Your task to perform on an android device: find which apps use the phone's location Image 0: 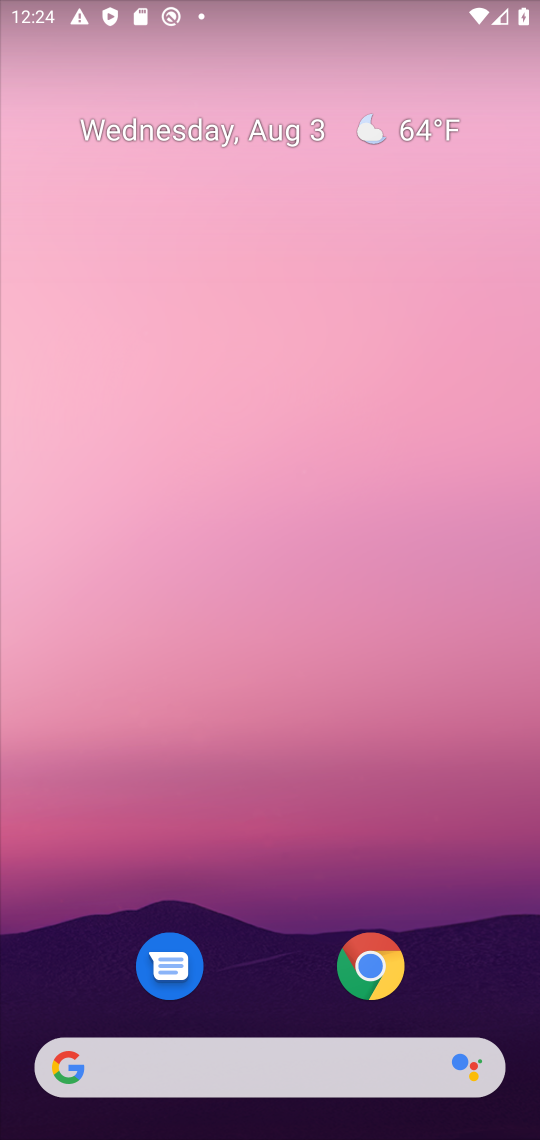
Step 0: drag from (274, 948) to (278, 247)
Your task to perform on an android device: find which apps use the phone's location Image 1: 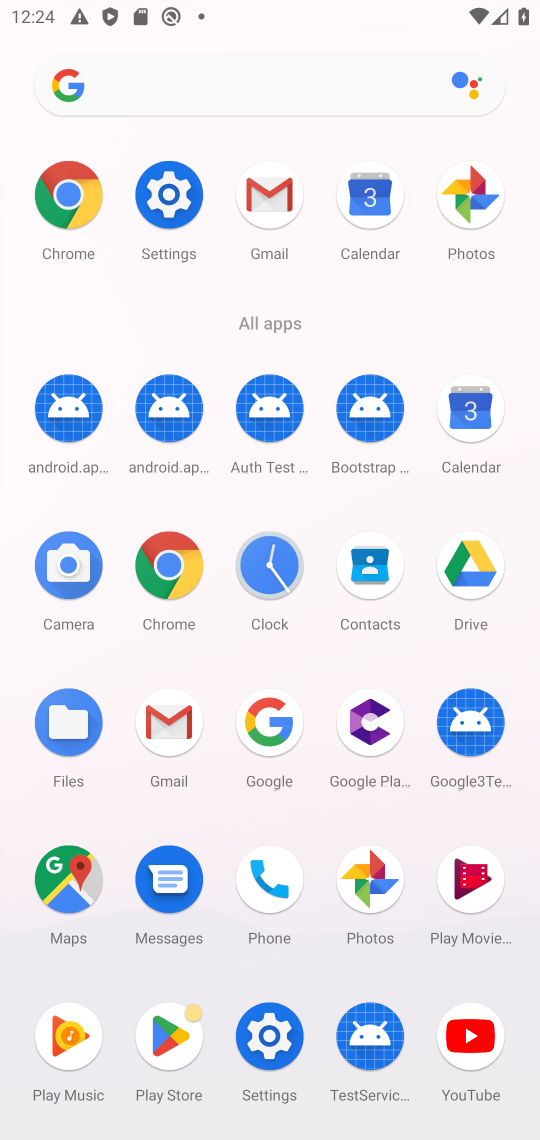
Step 1: click (196, 199)
Your task to perform on an android device: find which apps use the phone's location Image 2: 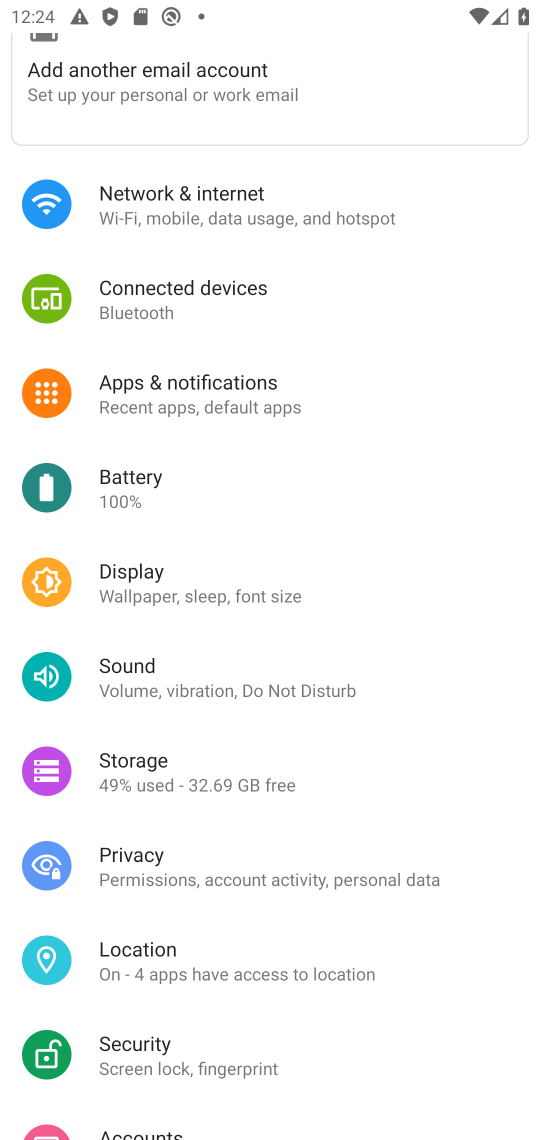
Step 2: click (230, 984)
Your task to perform on an android device: find which apps use the phone's location Image 3: 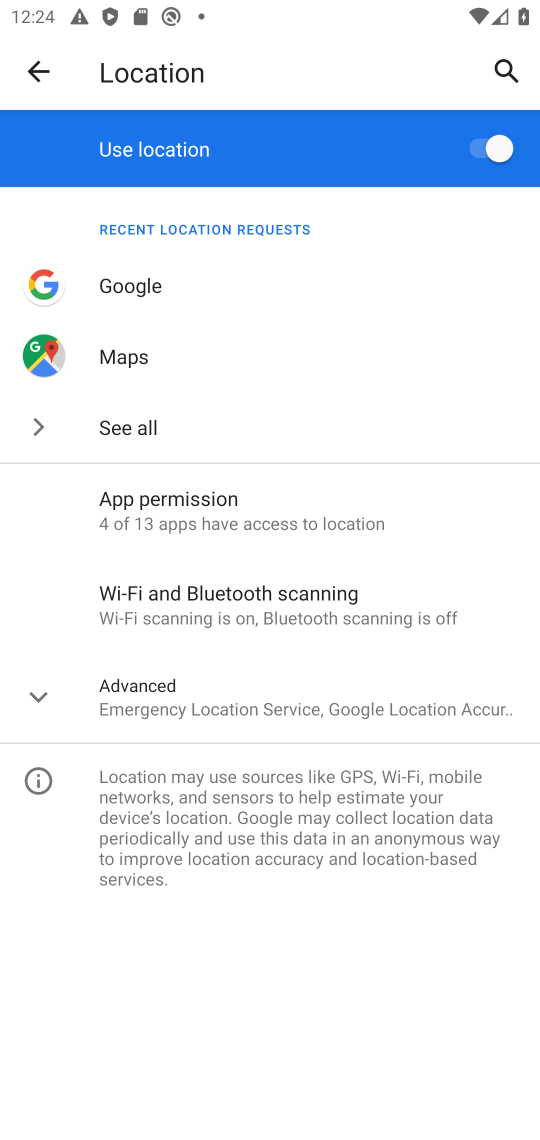
Step 3: click (249, 516)
Your task to perform on an android device: find which apps use the phone's location Image 4: 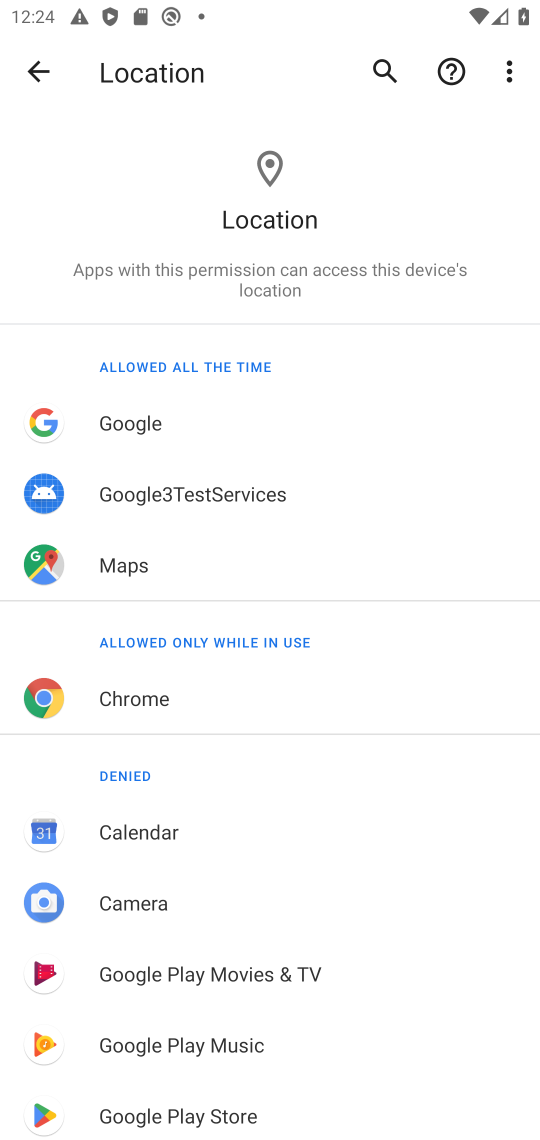
Step 4: task complete